Your task to perform on an android device: Go to Google maps Image 0: 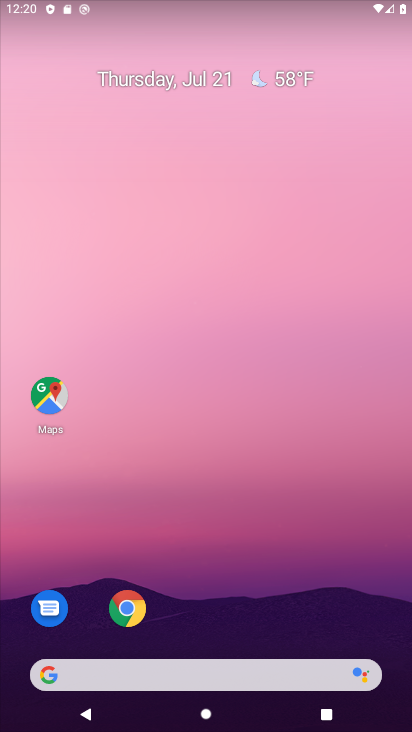
Step 0: click (23, 385)
Your task to perform on an android device: Go to Google maps Image 1: 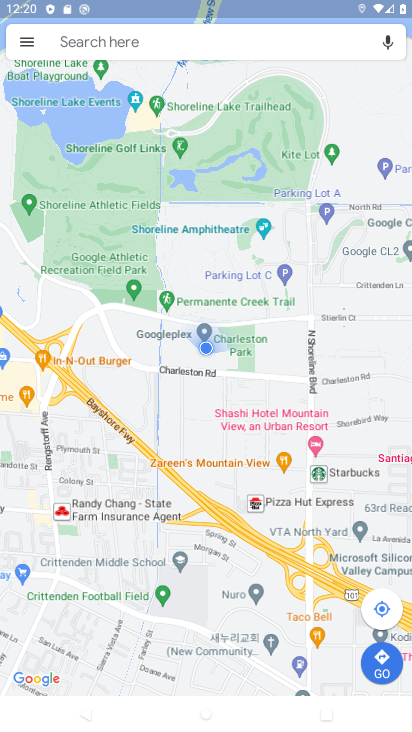
Step 1: task complete